Your task to perform on an android device: check data usage Image 0: 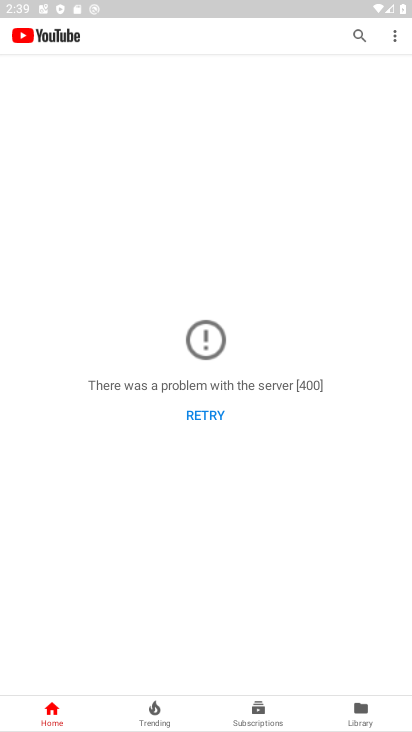
Step 0: press home button
Your task to perform on an android device: check data usage Image 1: 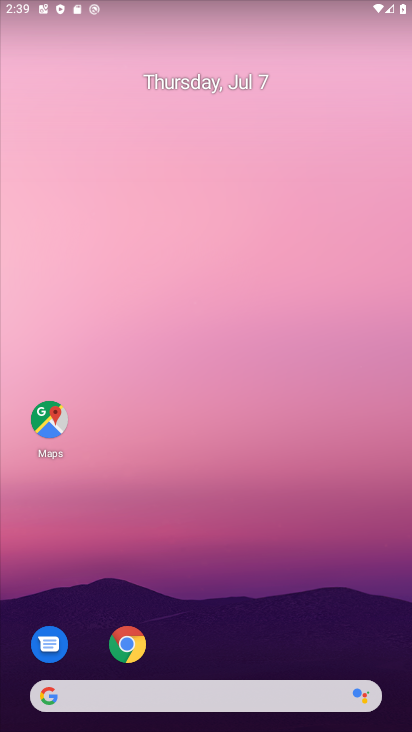
Step 1: drag from (227, 670) to (264, 204)
Your task to perform on an android device: check data usage Image 2: 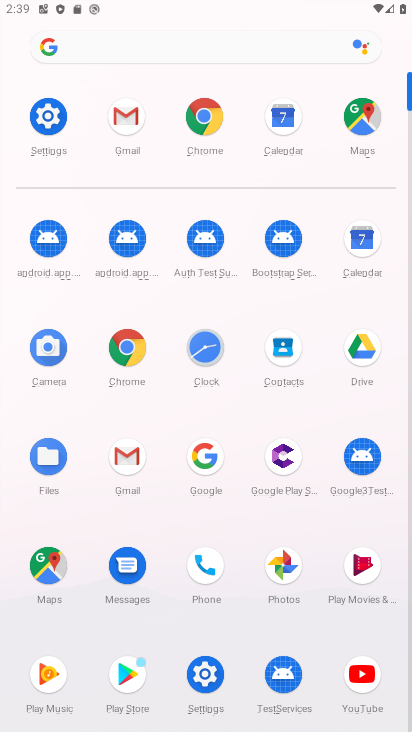
Step 2: click (49, 117)
Your task to perform on an android device: check data usage Image 3: 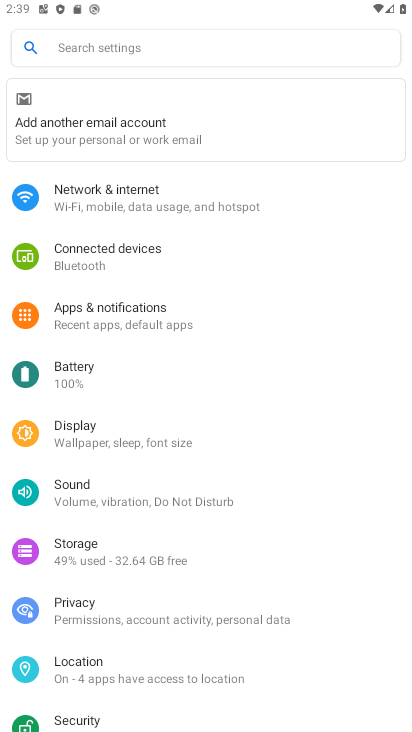
Step 3: click (147, 206)
Your task to perform on an android device: check data usage Image 4: 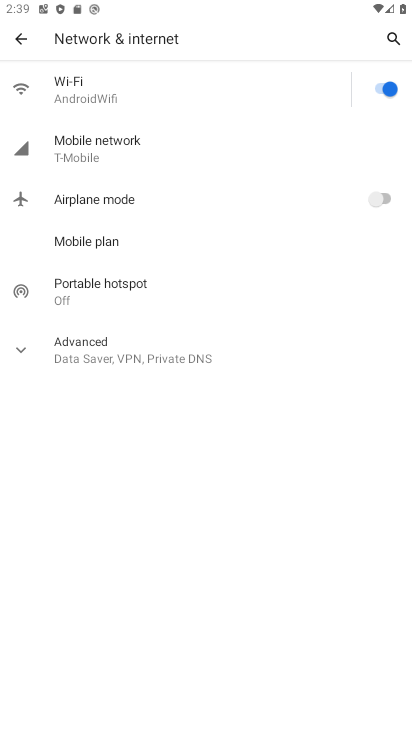
Step 4: click (87, 137)
Your task to perform on an android device: check data usage Image 5: 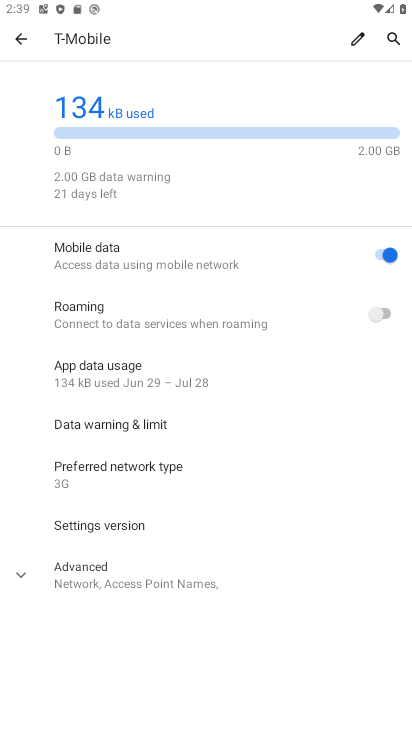
Step 5: click (94, 370)
Your task to perform on an android device: check data usage Image 6: 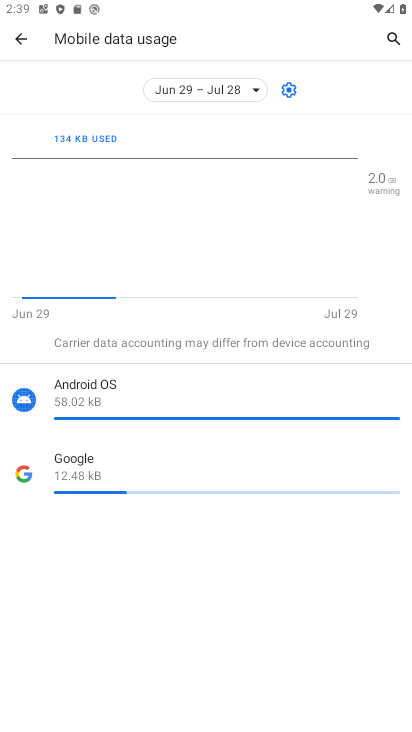
Step 6: task complete